Your task to perform on an android device: turn off notifications in google photos Image 0: 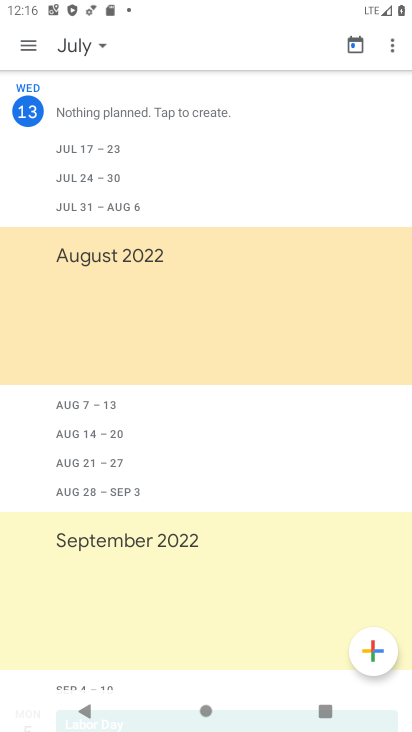
Step 0: press home button
Your task to perform on an android device: turn off notifications in google photos Image 1: 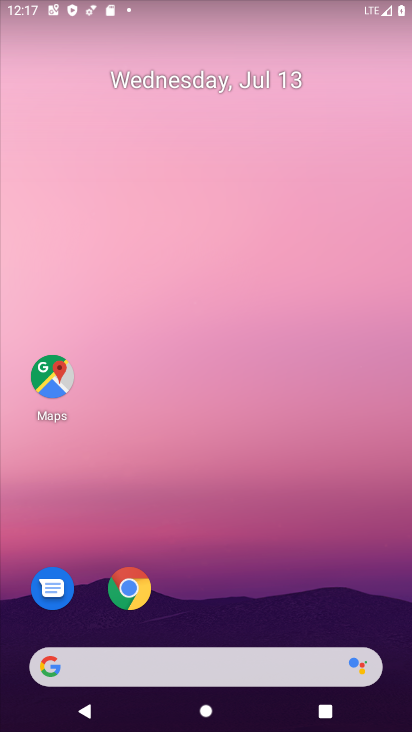
Step 1: drag from (401, 626) to (372, 104)
Your task to perform on an android device: turn off notifications in google photos Image 2: 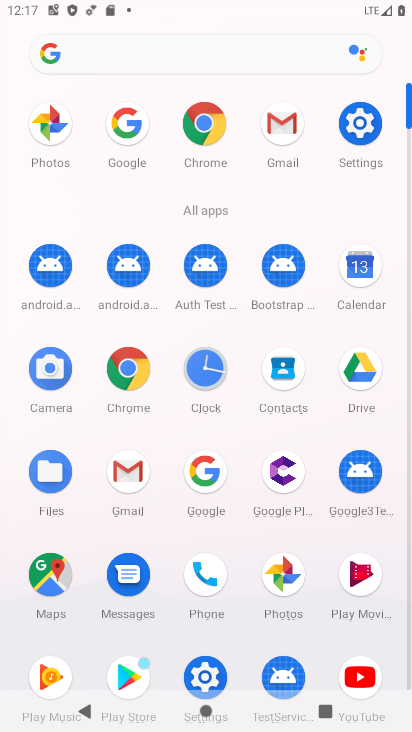
Step 2: click (290, 572)
Your task to perform on an android device: turn off notifications in google photos Image 3: 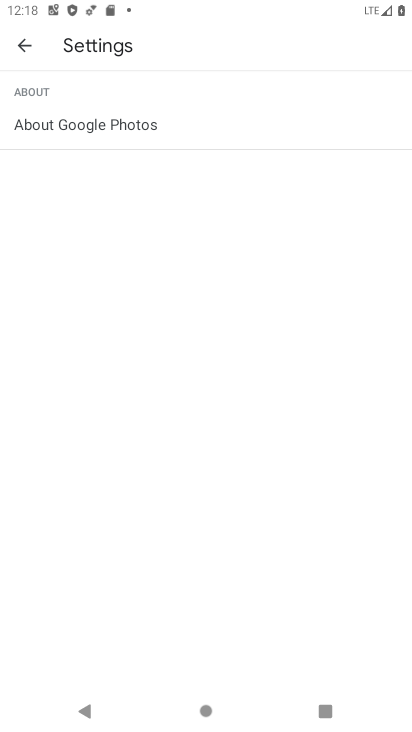
Step 3: task complete